Your task to perform on an android device: turn vacation reply on in the gmail app Image 0: 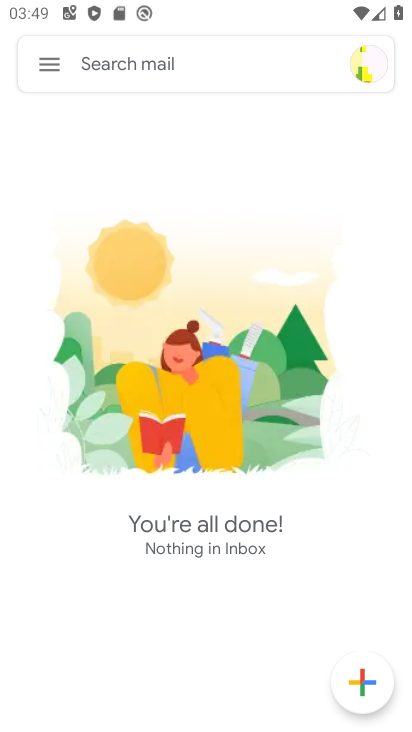
Step 0: click (53, 73)
Your task to perform on an android device: turn vacation reply on in the gmail app Image 1: 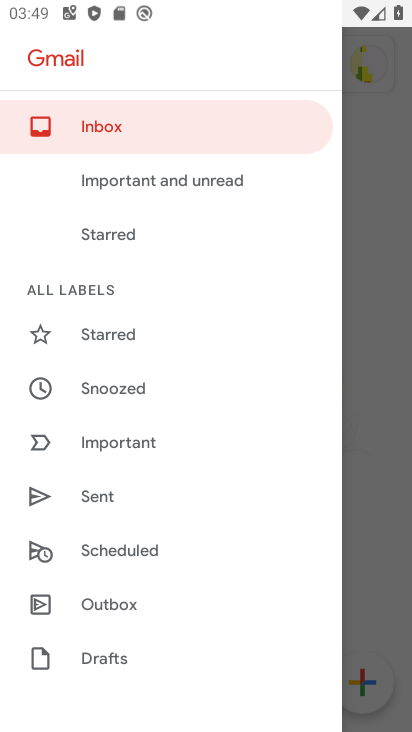
Step 1: drag from (212, 463) to (188, 334)
Your task to perform on an android device: turn vacation reply on in the gmail app Image 2: 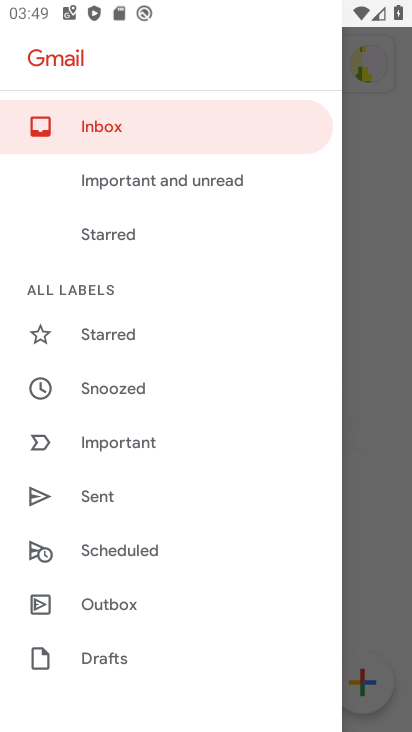
Step 2: drag from (172, 503) to (190, 363)
Your task to perform on an android device: turn vacation reply on in the gmail app Image 3: 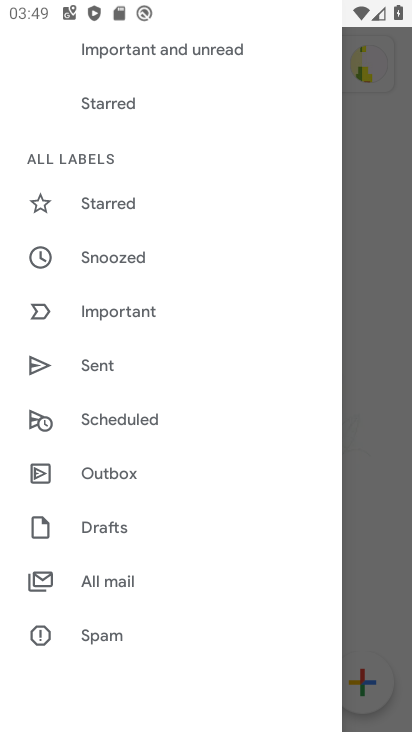
Step 3: drag from (200, 578) to (216, 423)
Your task to perform on an android device: turn vacation reply on in the gmail app Image 4: 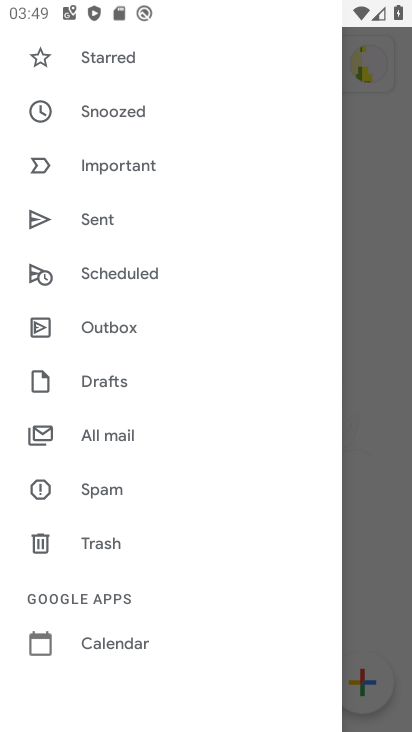
Step 4: drag from (173, 563) to (202, 401)
Your task to perform on an android device: turn vacation reply on in the gmail app Image 5: 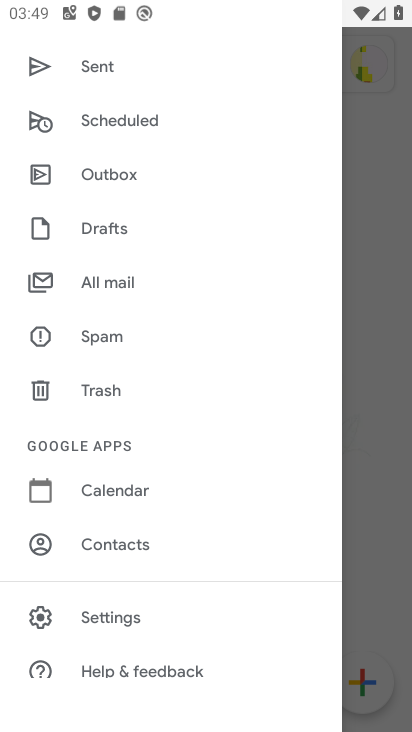
Step 5: click (176, 607)
Your task to perform on an android device: turn vacation reply on in the gmail app Image 6: 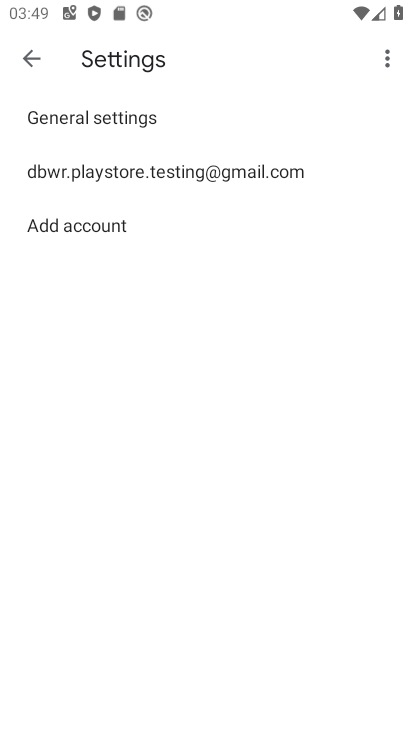
Step 6: click (268, 178)
Your task to perform on an android device: turn vacation reply on in the gmail app Image 7: 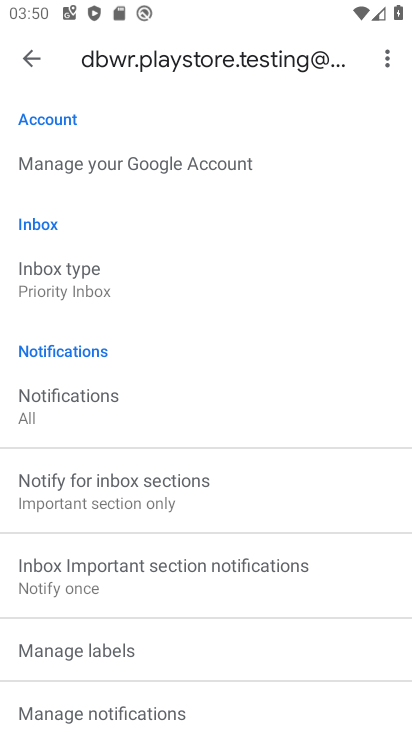
Step 7: drag from (242, 410) to (250, 329)
Your task to perform on an android device: turn vacation reply on in the gmail app Image 8: 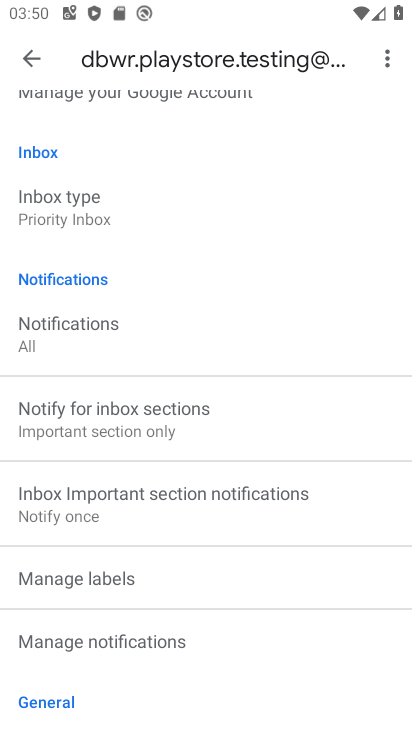
Step 8: drag from (225, 532) to (220, 433)
Your task to perform on an android device: turn vacation reply on in the gmail app Image 9: 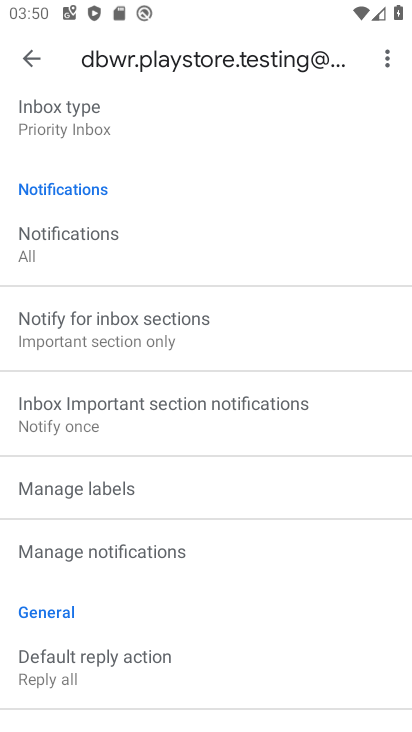
Step 9: drag from (249, 530) to (257, 426)
Your task to perform on an android device: turn vacation reply on in the gmail app Image 10: 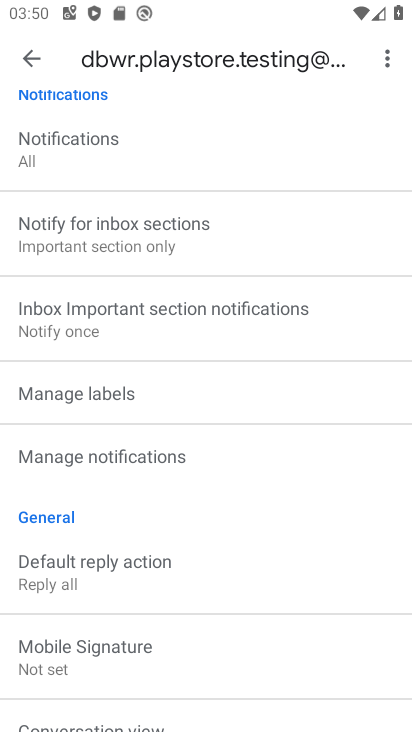
Step 10: drag from (251, 516) to (246, 434)
Your task to perform on an android device: turn vacation reply on in the gmail app Image 11: 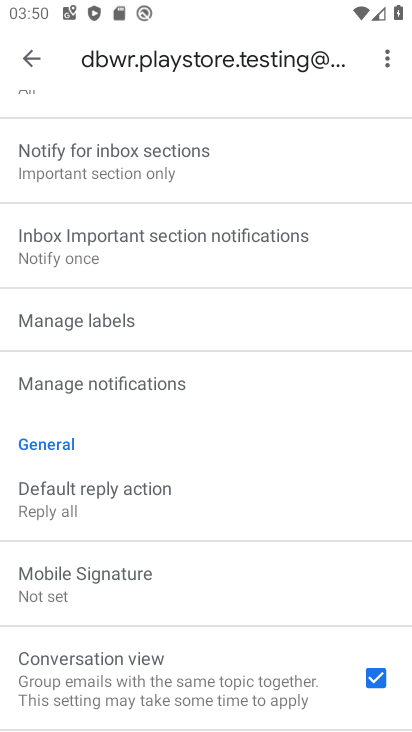
Step 11: drag from (256, 535) to (253, 433)
Your task to perform on an android device: turn vacation reply on in the gmail app Image 12: 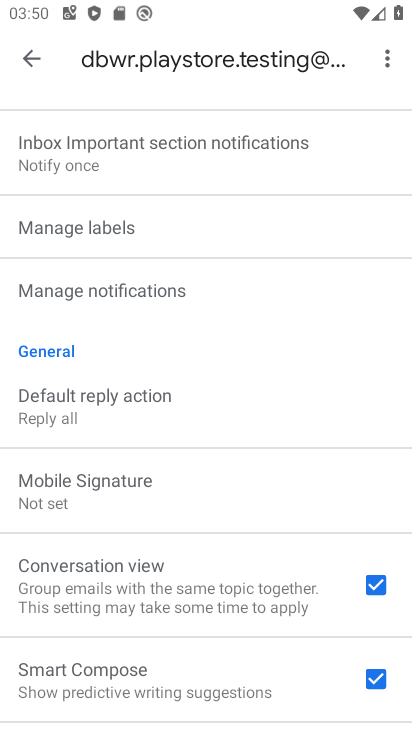
Step 12: drag from (239, 530) to (236, 441)
Your task to perform on an android device: turn vacation reply on in the gmail app Image 13: 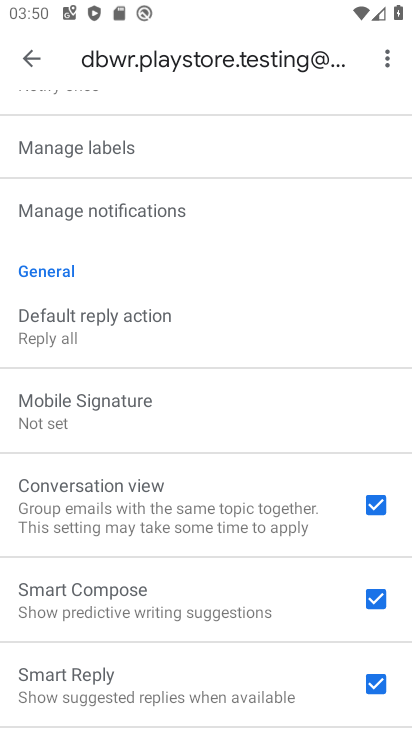
Step 13: drag from (253, 553) to (251, 479)
Your task to perform on an android device: turn vacation reply on in the gmail app Image 14: 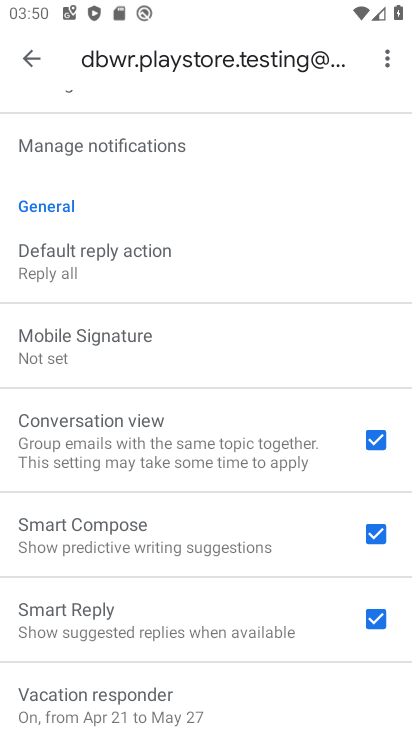
Step 14: drag from (263, 666) to (272, 569)
Your task to perform on an android device: turn vacation reply on in the gmail app Image 15: 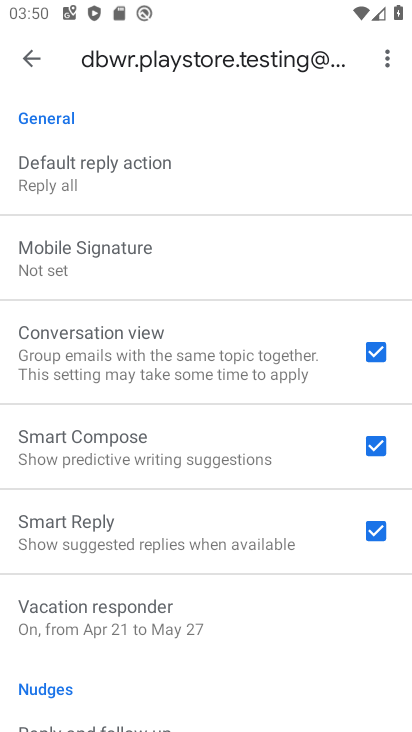
Step 15: click (249, 603)
Your task to perform on an android device: turn vacation reply on in the gmail app Image 16: 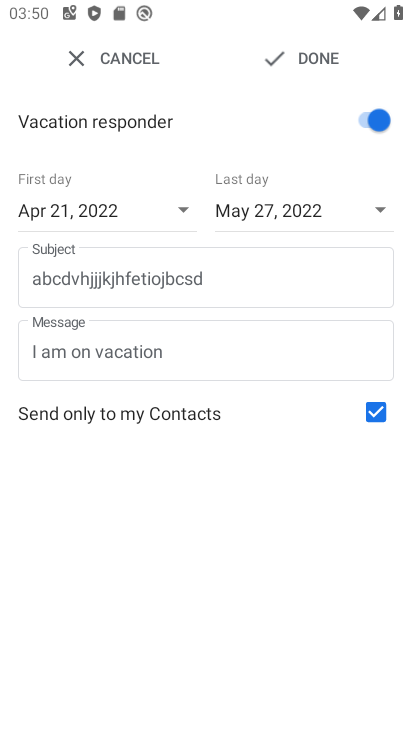
Step 16: click (325, 57)
Your task to perform on an android device: turn vacation reply on in the gmail app Image 17: 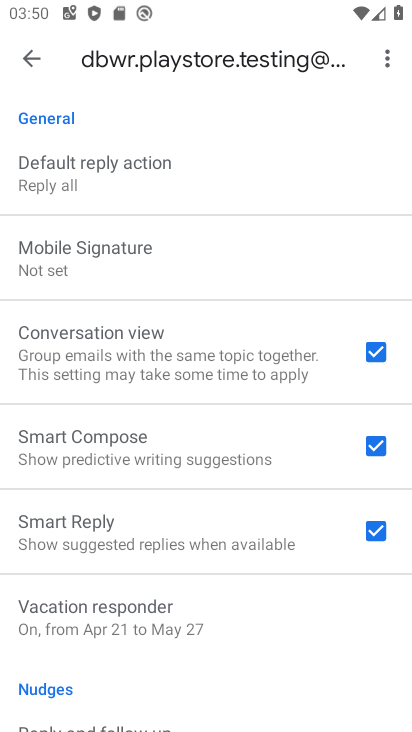
Step 17: task complete